Your task to perform on an android device: Go to battery settings Image 0: 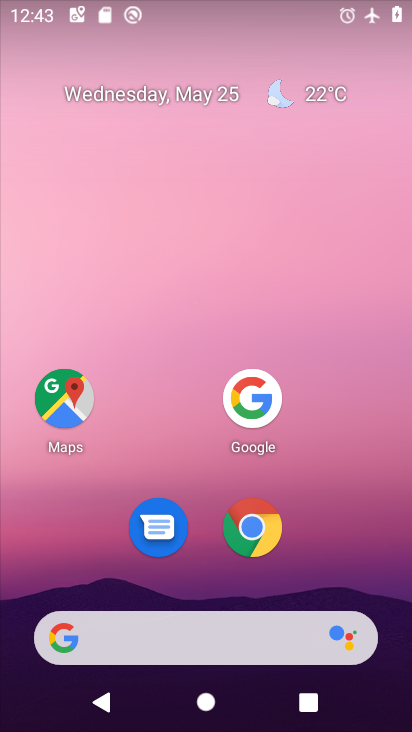
Step 0: press home button
Your task to perform on an android device: Go to battery settings Image 1: 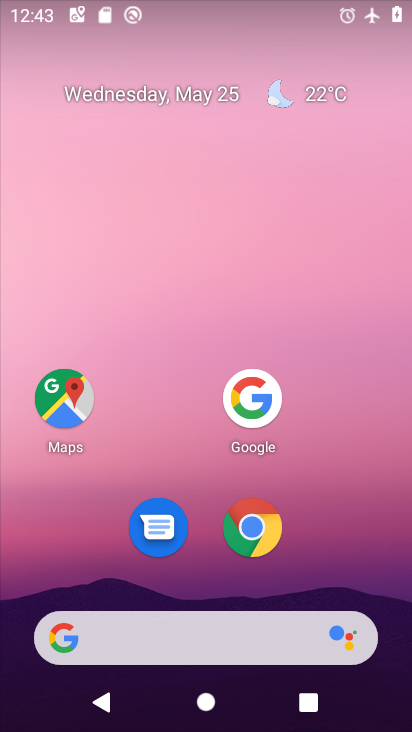
Step 1: drag from (183, 635) to (317, 130)
Your task to perform on an android device: Go to battery settings Image 2: 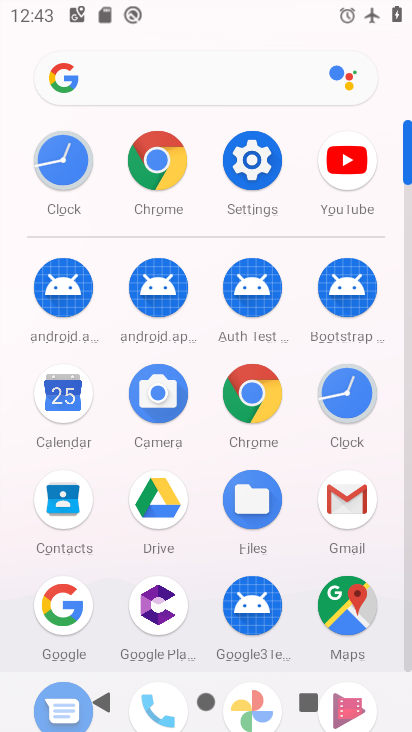
Step 2: click (254, 167)
Your task to perform on an android device: Go to battery settings Image 3: 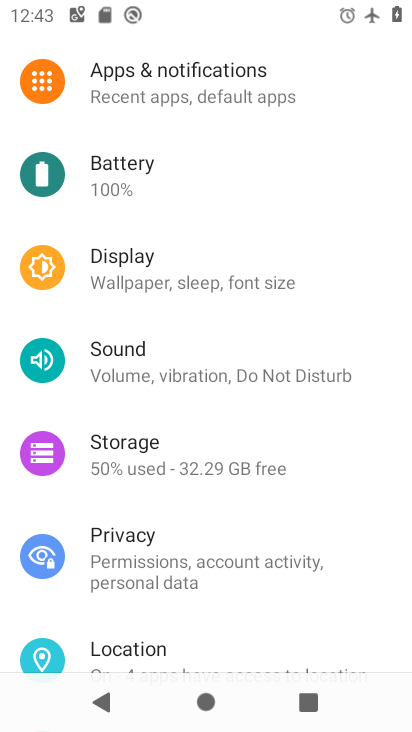
Step 3: drag from (174, 612) to (248, 165)
Your task to perform on an android device: Go to battery settings Image 4: 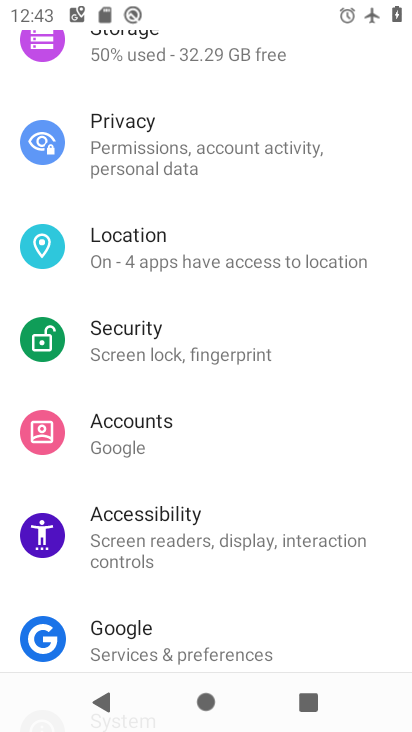
Step 4: drag from (276, 160) to (193, 643)
Your task to perform on an android device: Go to battery settings Image 5: 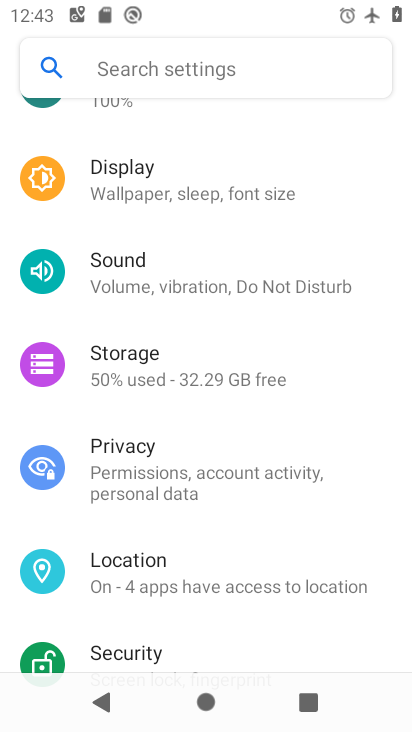
Step 5: drag from (240, 142) to (234, 484)
Your task to perform on an android device: Go to battery settings Image 6: 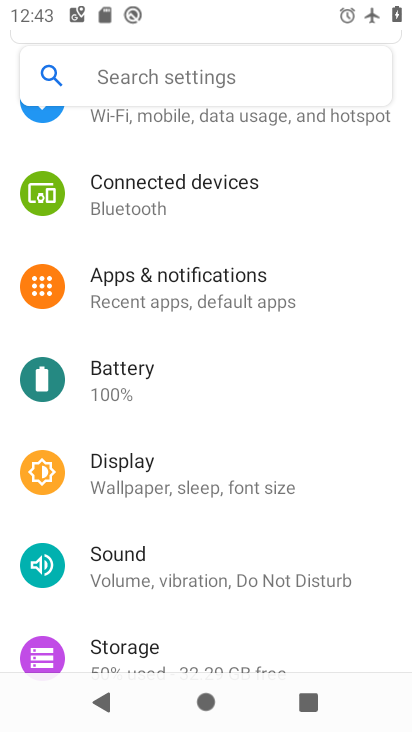
Step 6: click (148, 371)
Your task to perform on an android device: Go to battery settings Image 7: 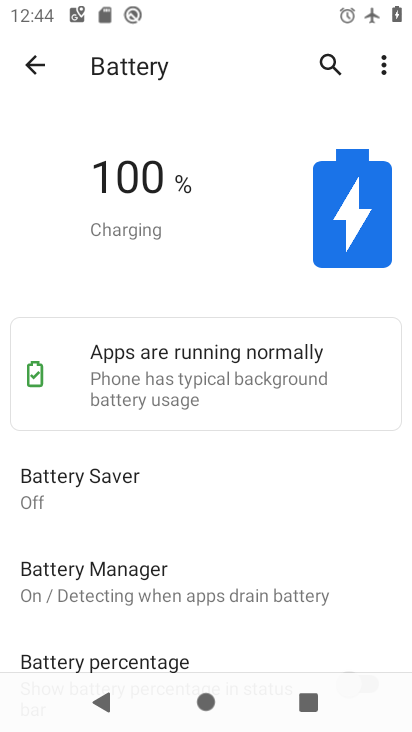
Step 7: task complete